Your task to perform on an android device: turn off location history Image 0: 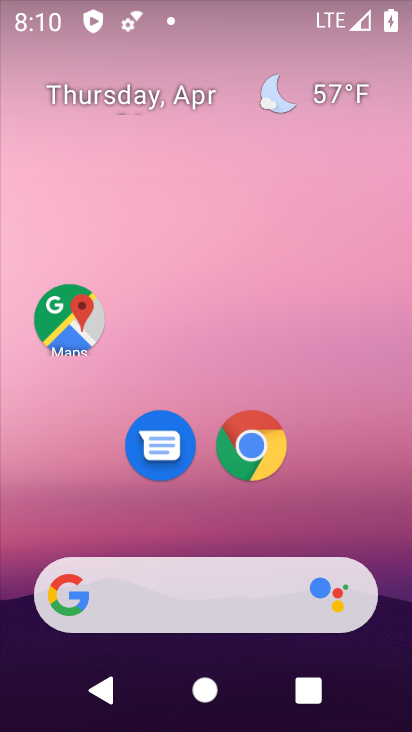
Step 0: click (73, 326)
Your task to perform on an android device: turn off location history Image 1: 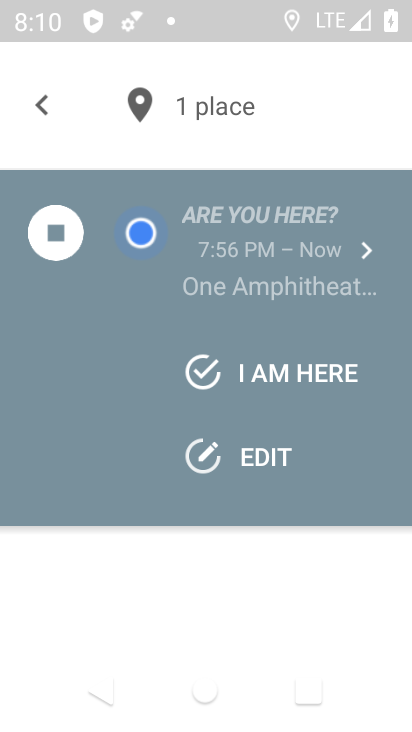
Step 1: click (35, 102)
Your task to perform on an android device: turn off location history Image 2: 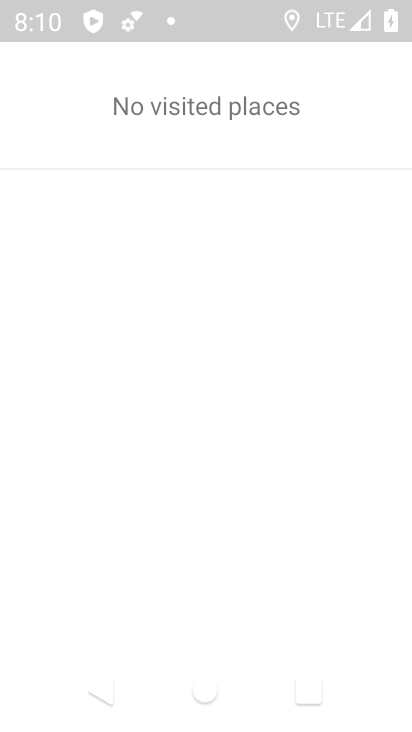
Step 2: press back button
Your task to perform on an android device: turn off location history Image 3: 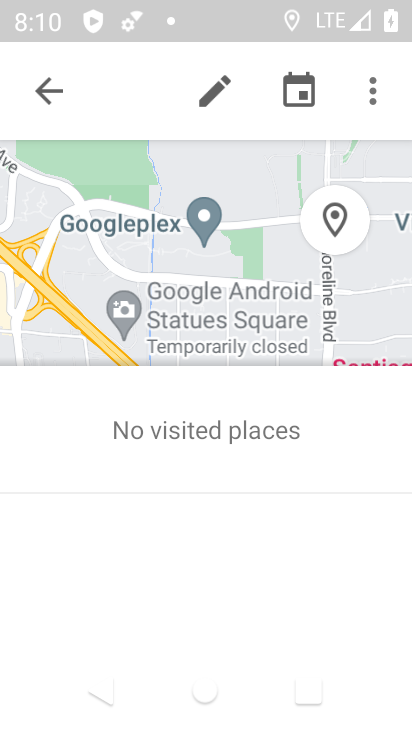
Step 3: click (376, 84)
Your task to perform on an android device: turn off location history Image 4: 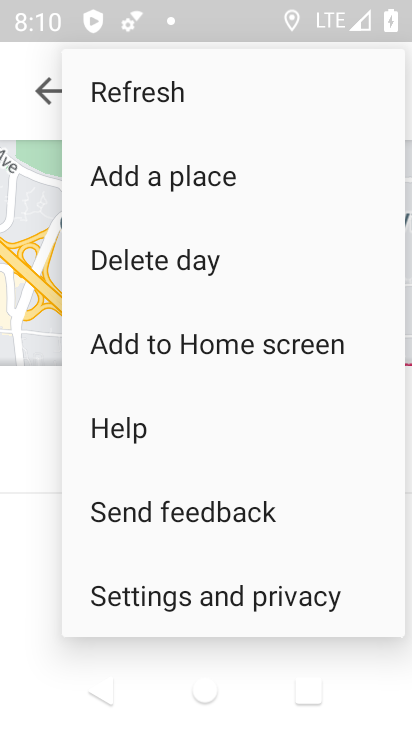
Step 4: click (225, 600)
Your task to perform on an android device: turn off location history Image 5: 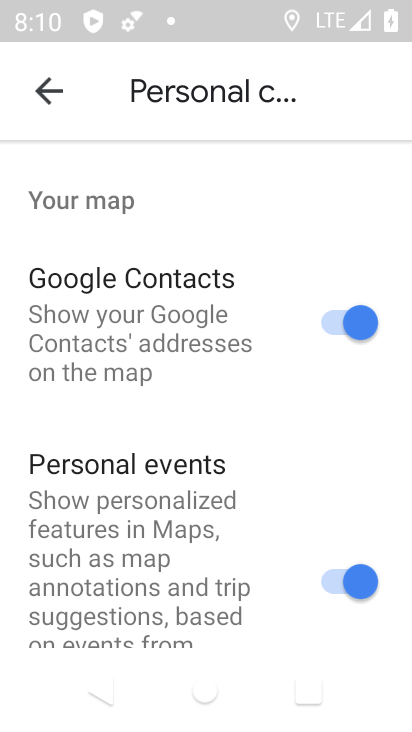
Step 5: drag from (224, 600) to (263, 103)
Your task to perform on an android device: turn off location history Image 6: 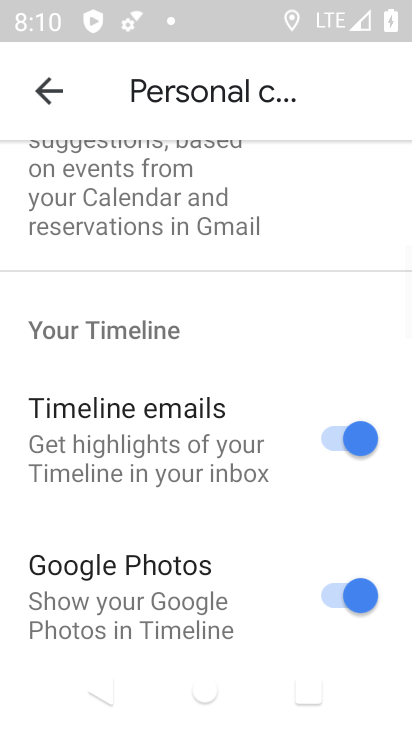
Step 6: drag from (188, 467) to (185, 146)
Your task to perform on an android device: turn off location history Image 7: 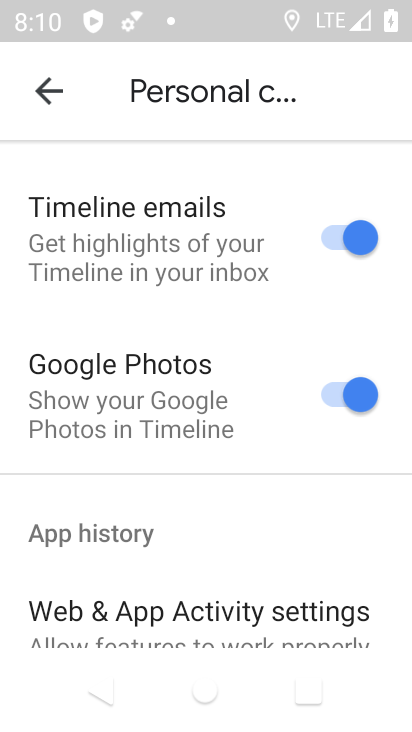
Step 7: drag from (202, 519) to (194, 202)
Your task to perform on an android device: turn off location history Image 8: 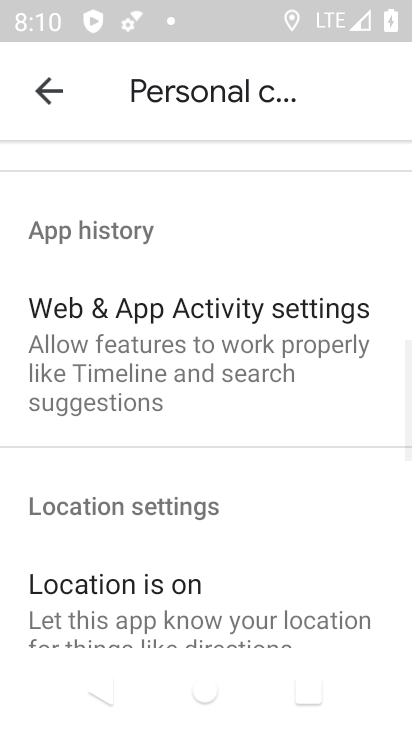
Step 8: drag from (185, 518) to (186, 224)
Your task to perform on an android device: turn off location history Image 9: 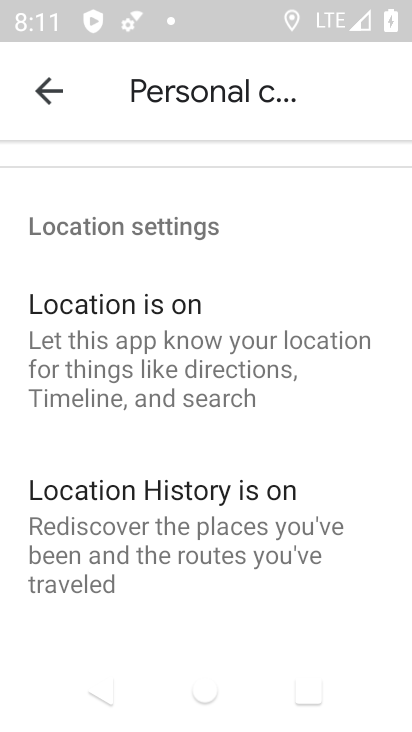
Step 9: click (112, 550)
Your task to perform on an android device: turn off location history Image 10: 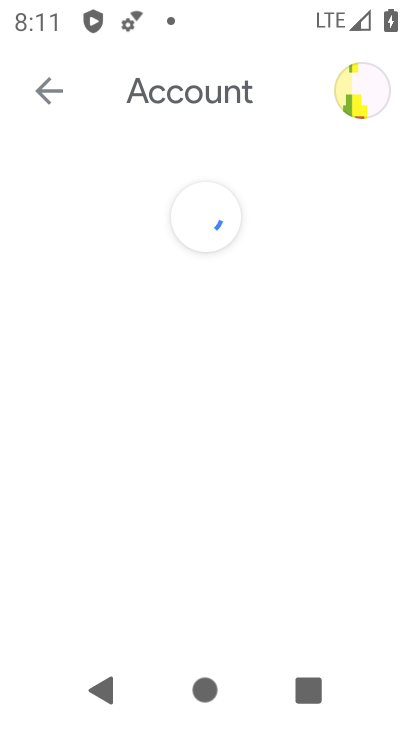
Step 10: task complete